Your task to perform on an android device: Open calendar and show me the third week of next month Image 0: 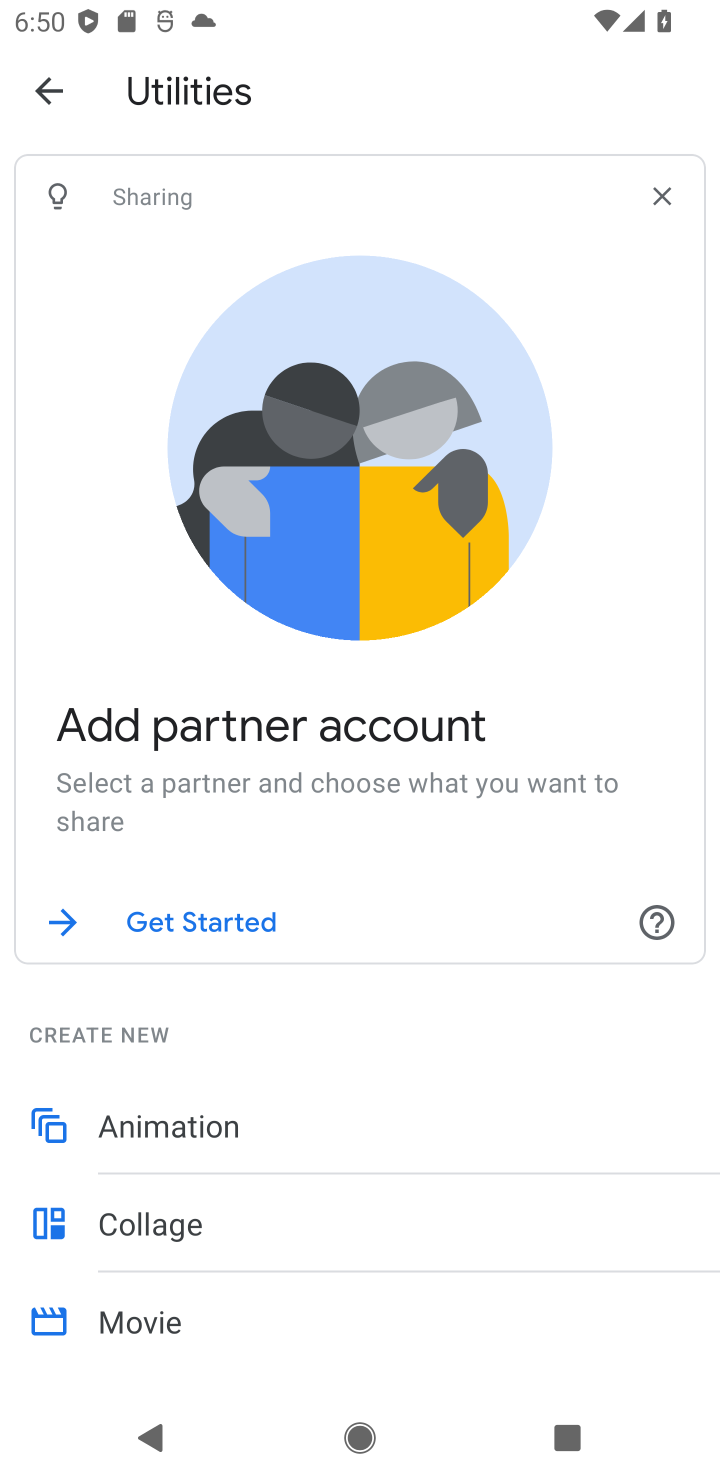
Step 0: press home button
Your task to perform on an android device: Open calendar and show me the third week of next month Image 1: 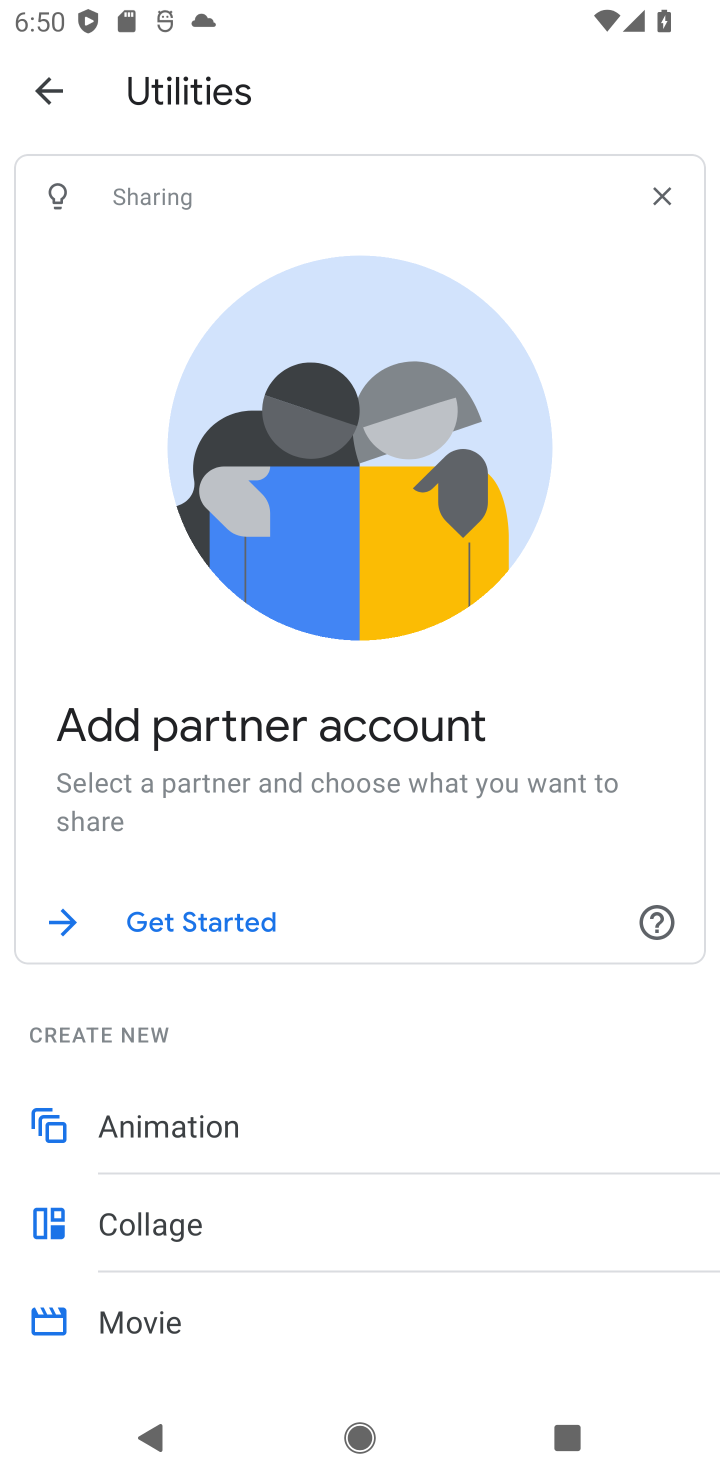
Step 1: press home button
Your task to perform on an android device: Open calendar and show me the third week of next month Image 2: 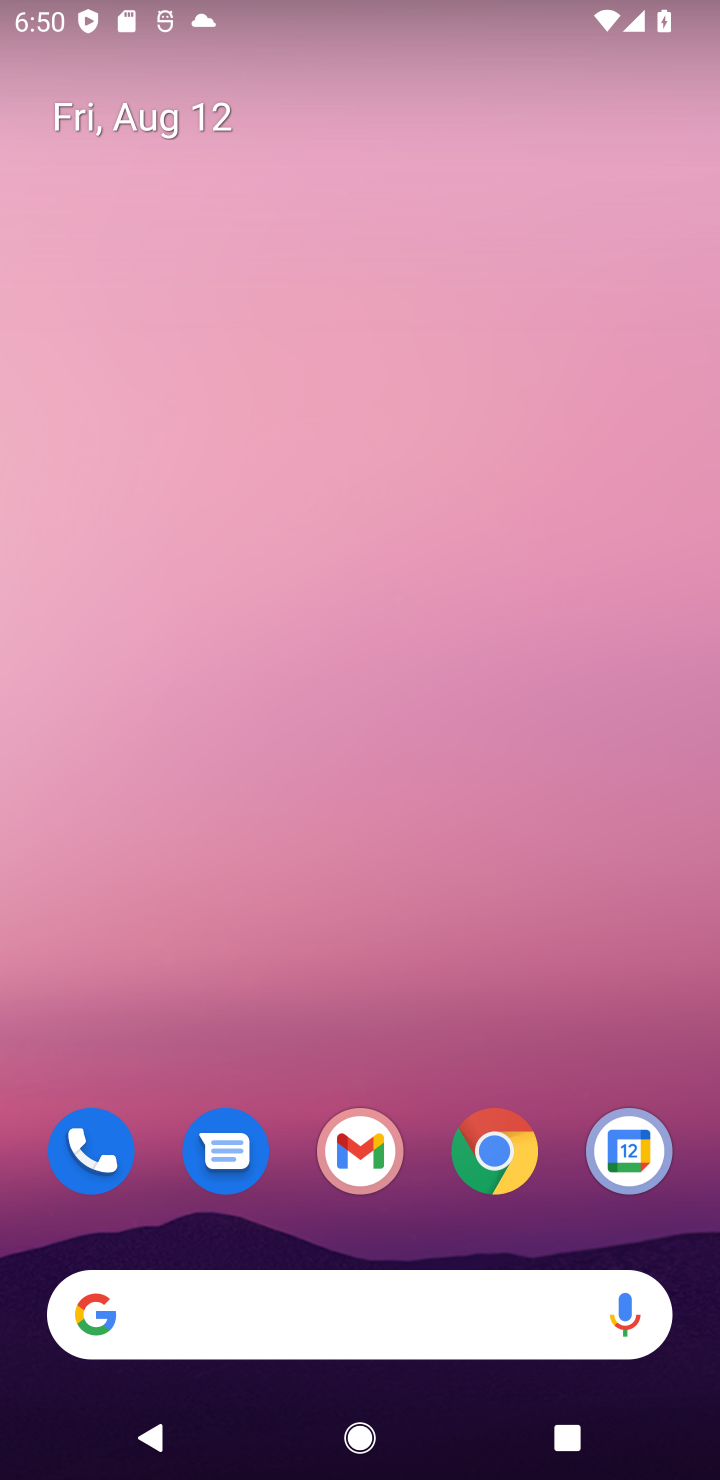
Step 2: drag from (387, 1018) to (377, 48)
Your task to perform on an android device: Open calendar and show me the third week of next month Image 3: 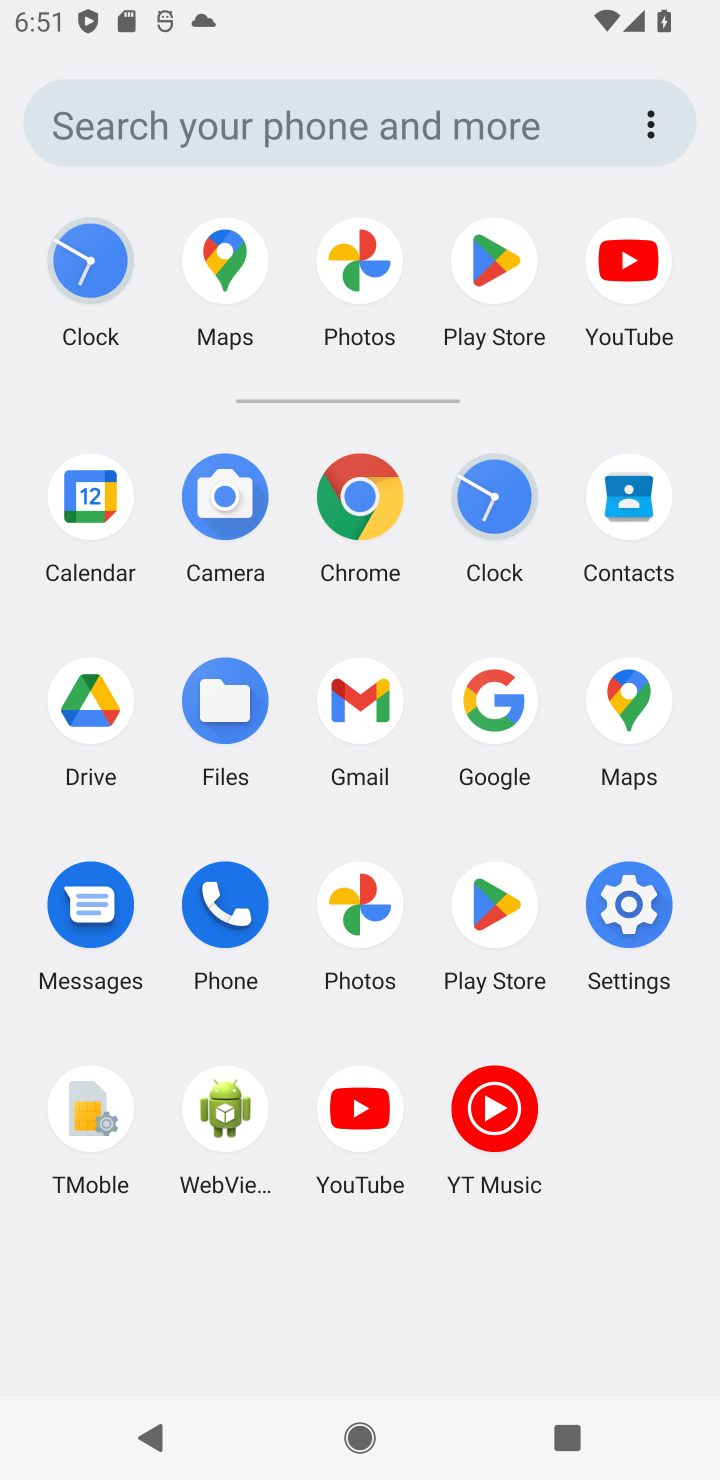
Step 3: click (86, 496)
Your task to perform on an android device: Open calendar and show me the third week of next month Image 4: 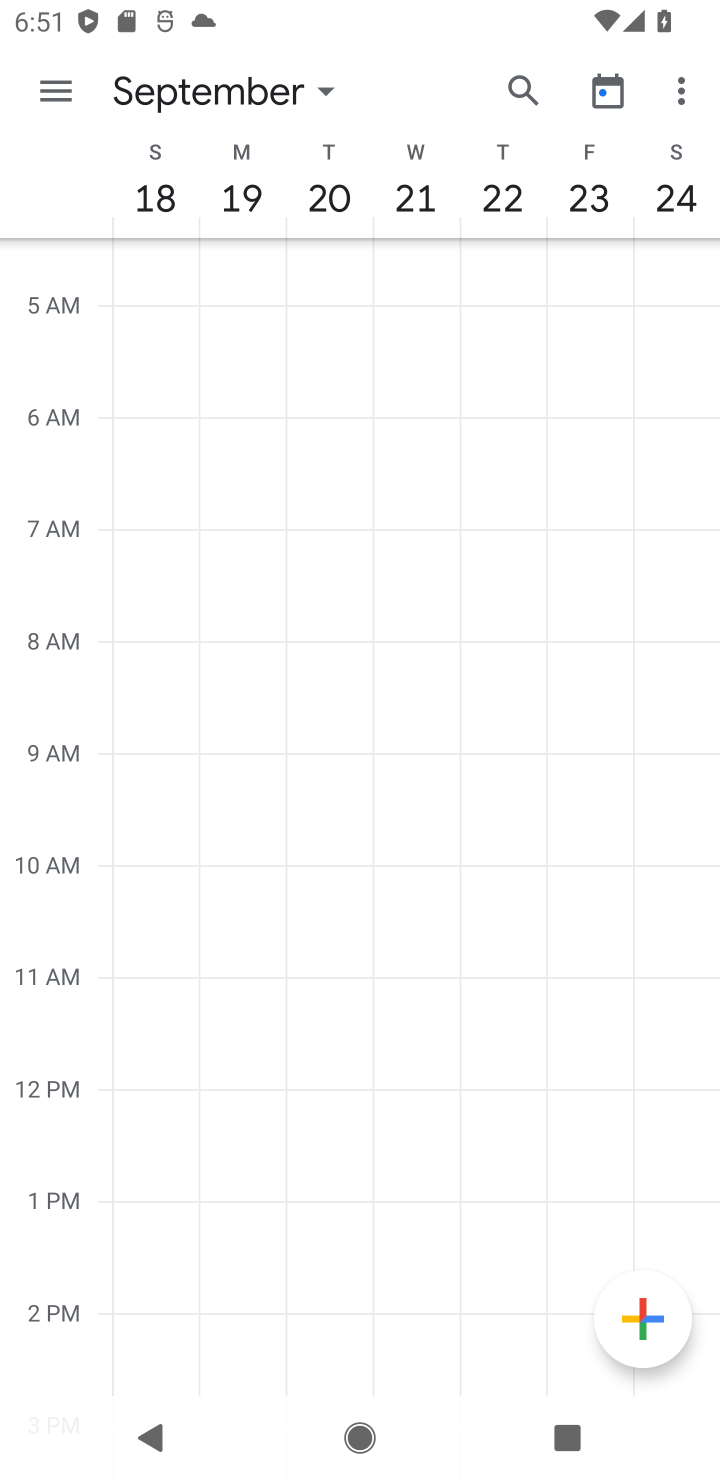
Step 4: click (280, 86)
Your task to perform on an android device: Open calendar and show me the third week of next month Image 5: 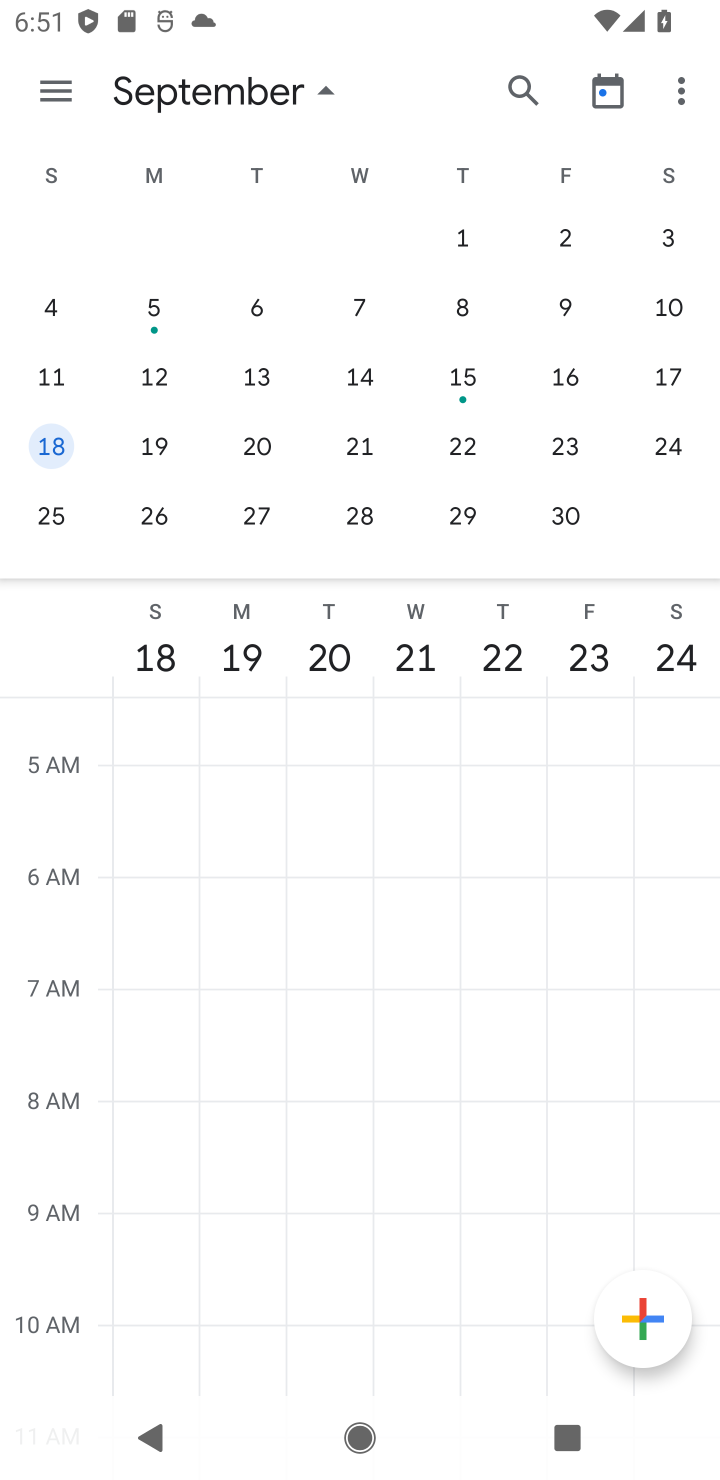
Step 5: task complete